Your task to perform on an android device: turn off notifications in google photos Image 0: 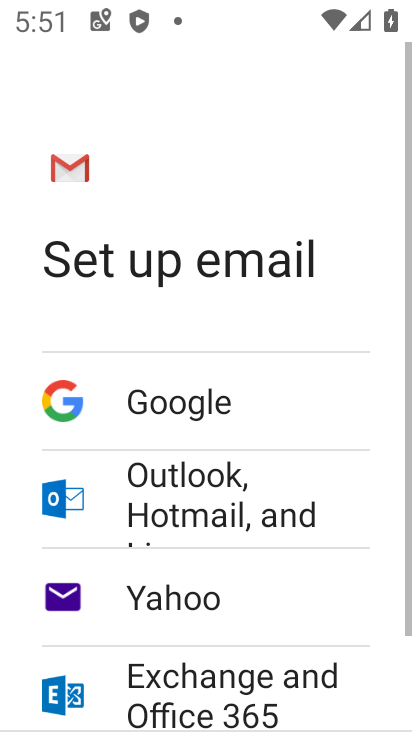
Step 0: press home button
Your task to perform on an android device: turn off notifications in google photos Image 1: 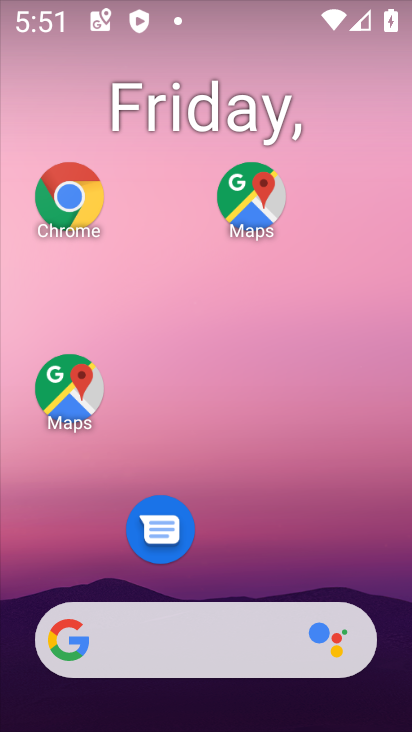
Step 1: drag from (244, 541) to (264, 87)
Your task to perform on an android device: turn off notifications in google photos Image 2: 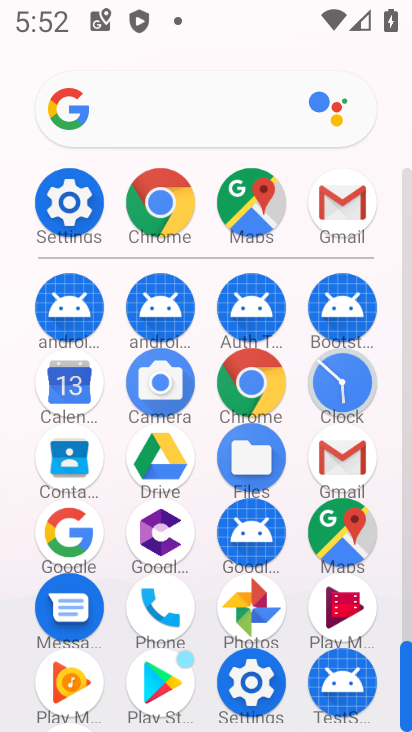
Step 2: click (250, 609)
Your task to perform on an android device: turn off notifications in google photos Image 3: 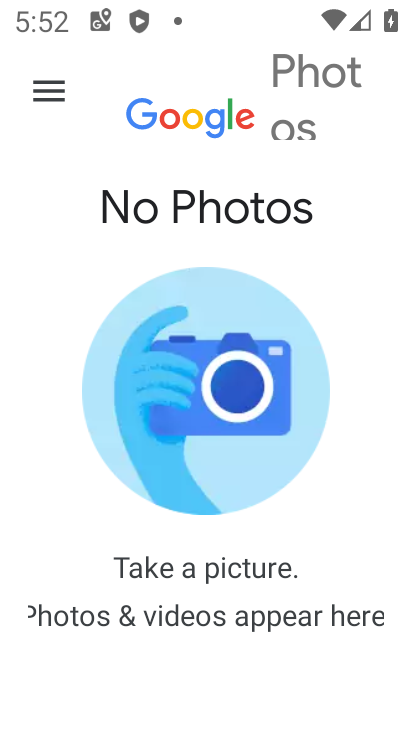
Step 3: click (49, 87)
Your task to perform on an android device: turn off notifications in google photos Image 4: 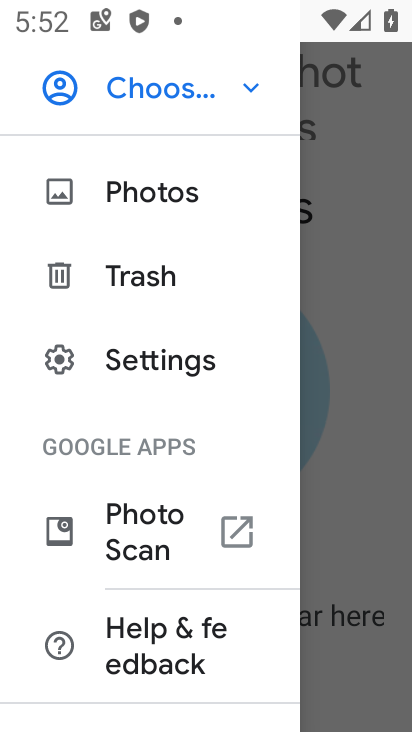
Step 4: click (168, 356)
Your task to perform on an android device: turn off notifications in google photos Image 5: 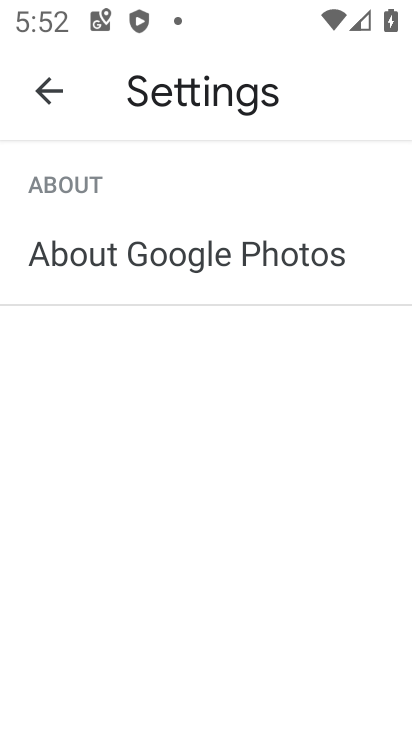
Step 5: click (48, 97)
Your task to perform on an android device: turn off notifications in google photos Image 6: 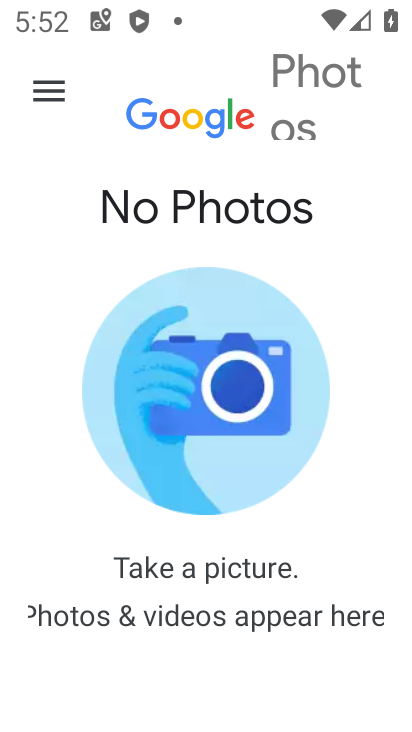
Step 6: click (53, 95)
Your task to perform on an android device: turn off notifications in google photos Image 7: 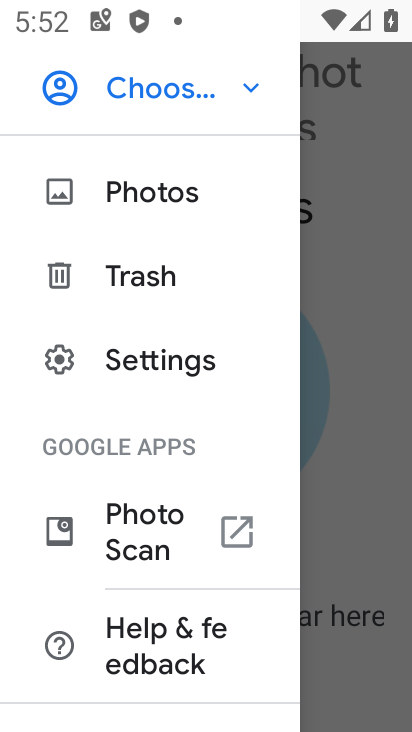
Step 7: click (150, 364)
Your task to perform on an android device: turn off notifications in google photos Image 8: 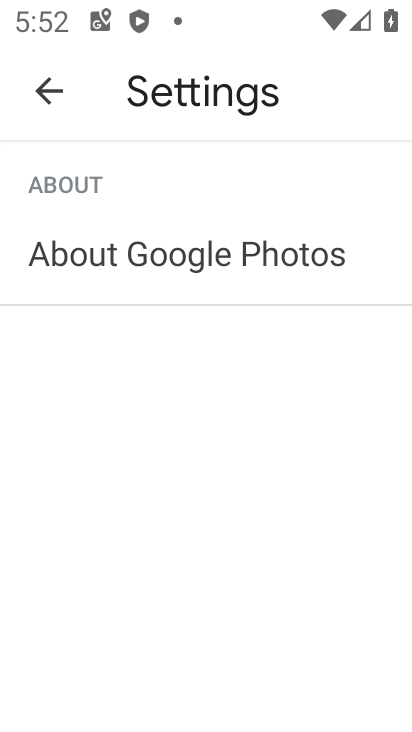
Step 8: click (53, 92)
Your task to perform on an android device: turn off notifications in google photos Image 9: 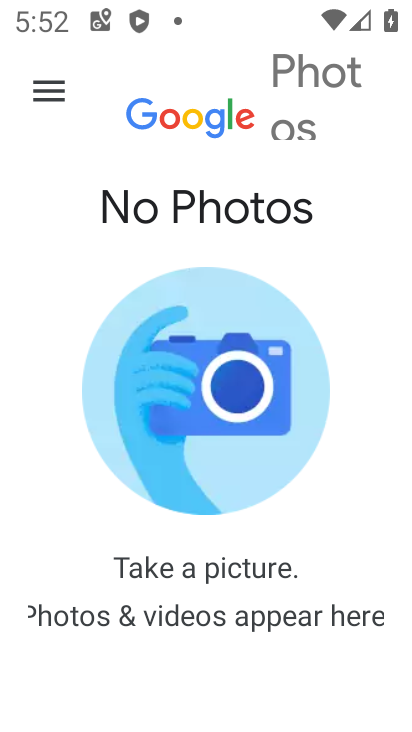
Step 9: click (54, 95)
Your task to perform on an android device: turn off notifications in google photos Image 10: 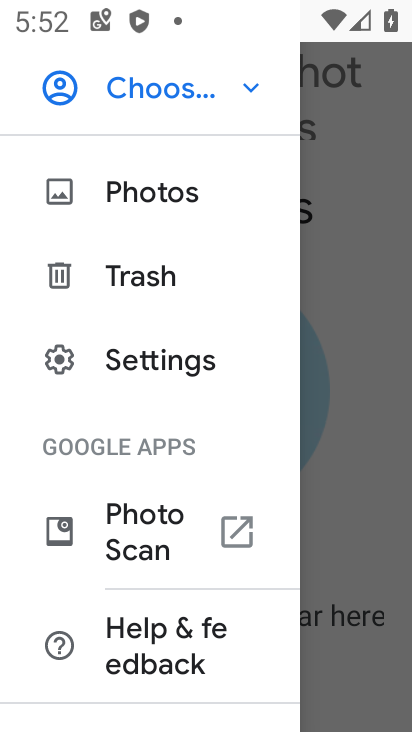
Step 10: click (161, 364)
Your task to perform on an android device: turn off notifications in google photos Image 11: 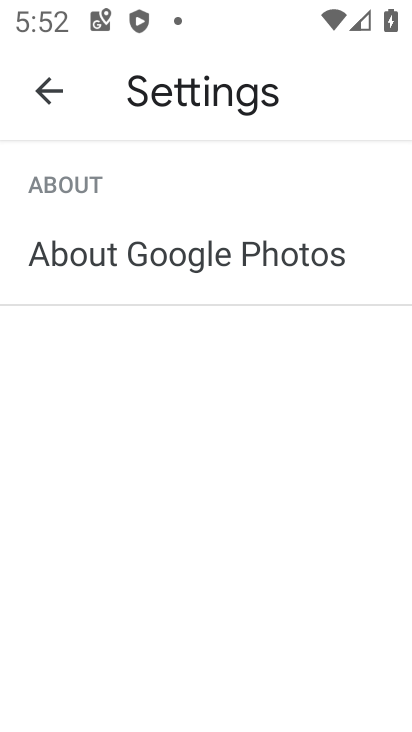
Step 11: task complete